Your task to perform on an android device: toggle data saver in the chrome app Image 0: 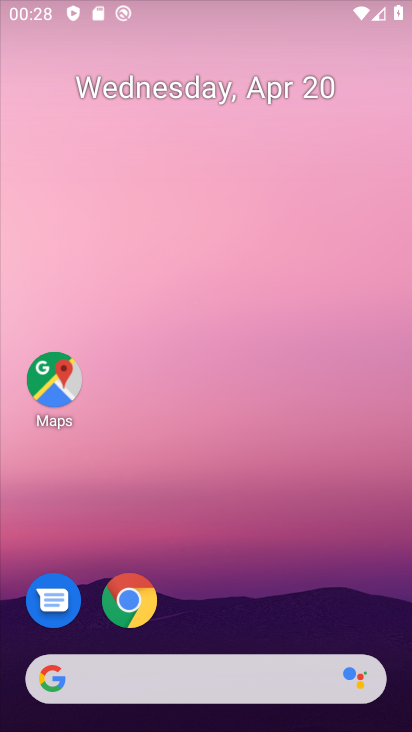
Step 0: drag from (300, 391) to (251, 36)
Your task to perform on an android device: toggle data saver in the chrome app Image 1: 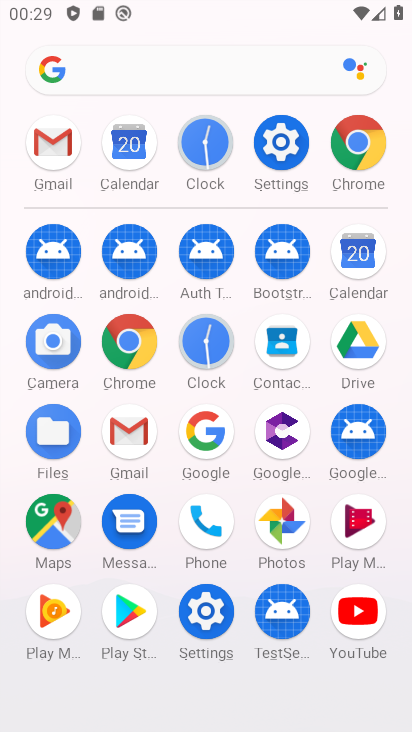
Step 1: click (124, 338)
Your task to perform on an android device: toggle data saver in the chrome app Image 2: 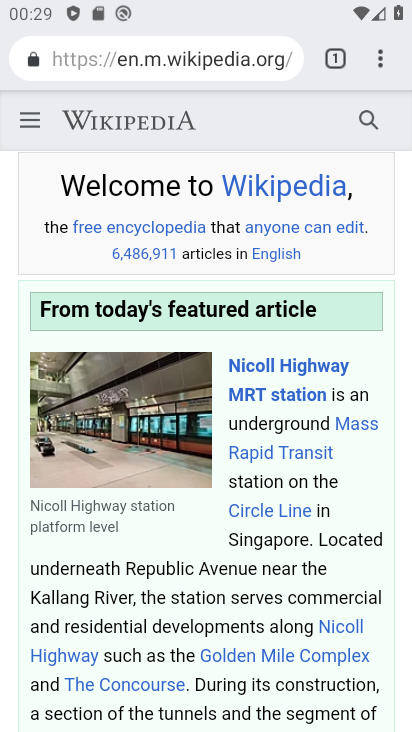
Step 2: drag from (379, 58) to (207, 633)
Your task to perform on an android device: toggle data saver in the chrome app Image 3: 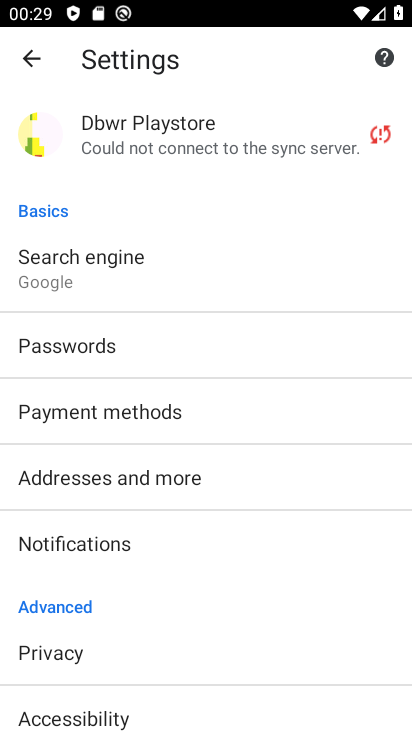
Step 3: drag from (256, 468) to (225, 154)
Your task to perform on an android device: toggle data saver in the chrome app Image 4: 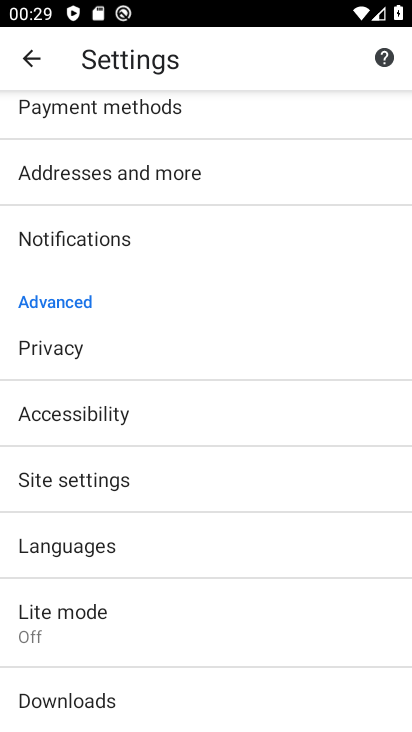
Step 4: click (172, 630)
Your task to perform on an android device: toggle data saver in the chrome app Image 5: 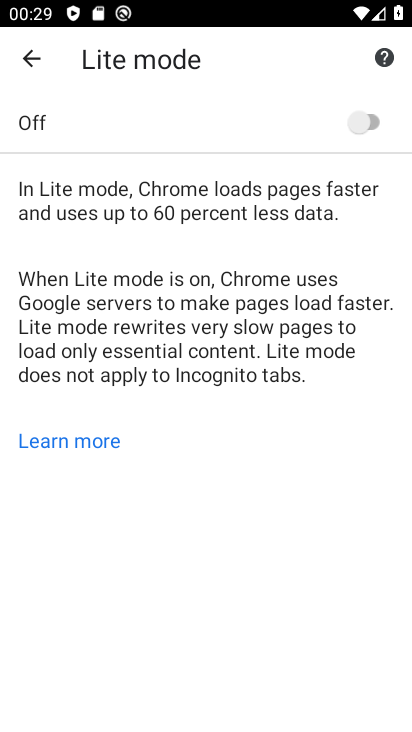
Step 5: click (369, 122)
Your task to perform on an android device: toggle data saver in the chrome app Image 6: 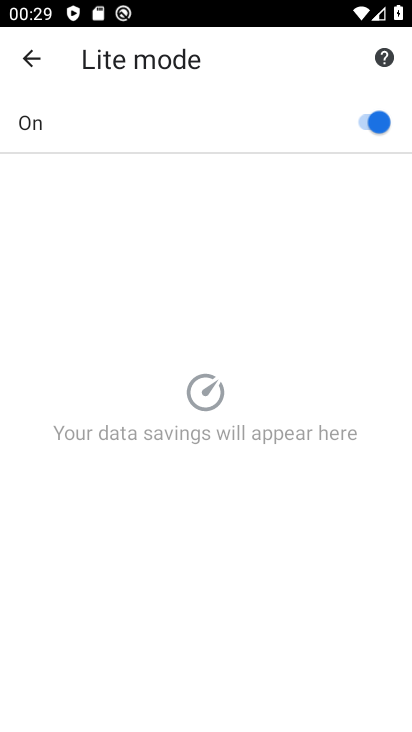
Step 6: task complete